Your task to perform on an android device: Open settings Image 0: 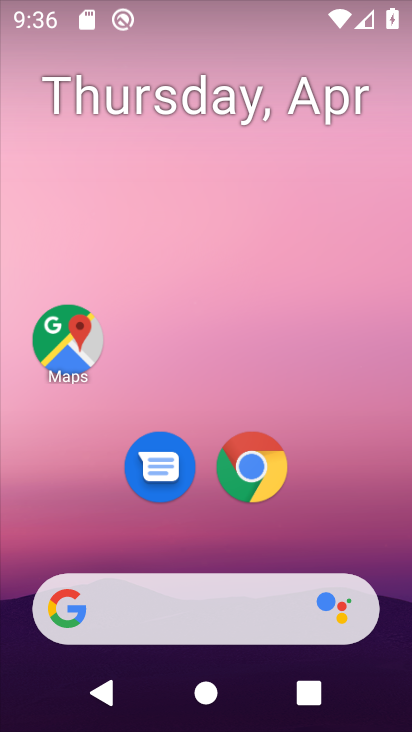
Step 0: drag from (388, 527) to (319, 275)
Your task to perform on an android device: Open settings Image 1: 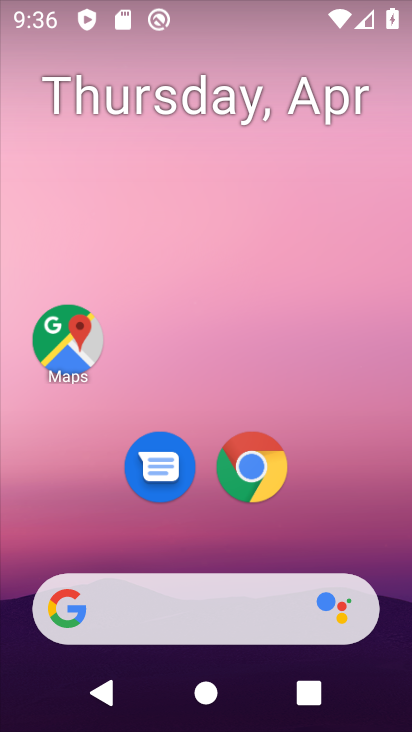
Step 1: drag from (377, 557) to (347, 269)
Your task to perform on an android device: Open settings Image 2: 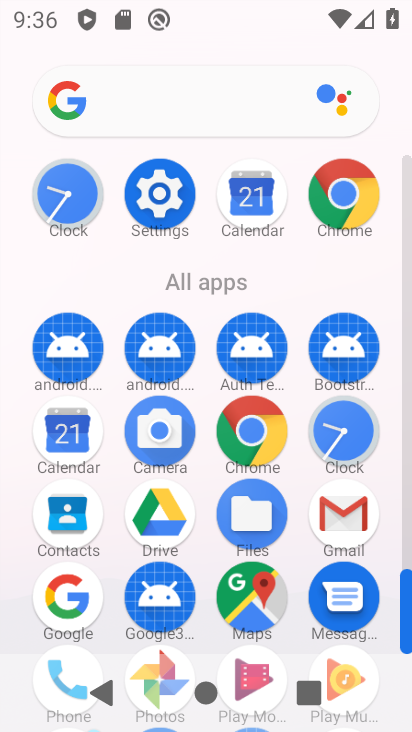
Step 2: click (169, 205)
Your task to perform on an android device: Open settings Image 3: 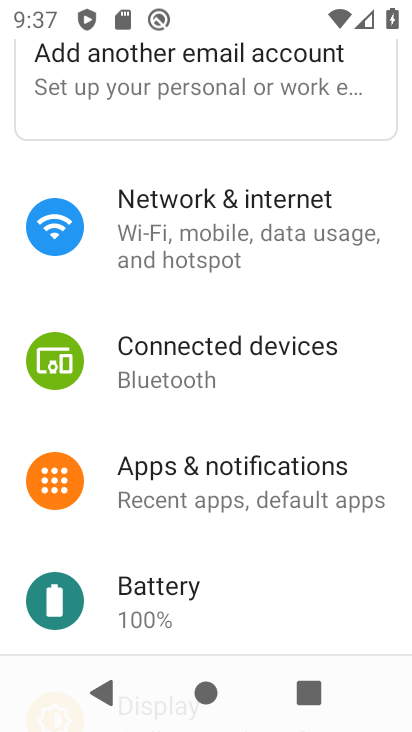
Step 3: task complete